Your task to perform on an android device: change the clock display to digital Image 0: 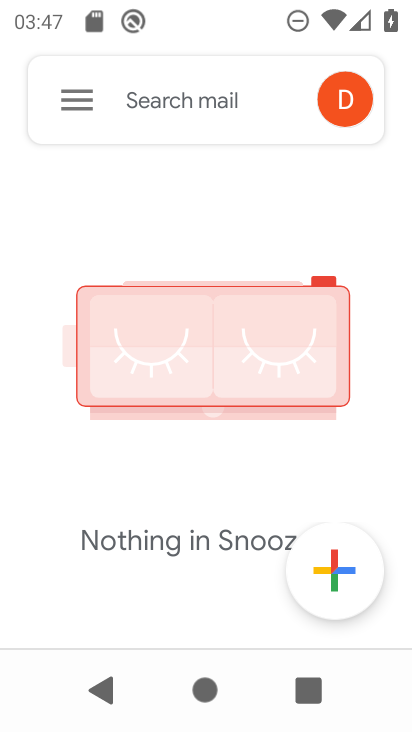
Step 0: press home button
Your task to perform on an android device: change the clock display to digital Image 1: 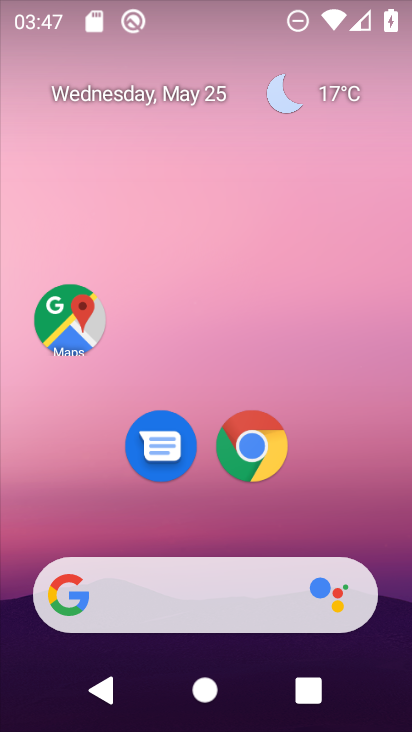
Step 1: drag from (224, 582) to (221, 174)
Your task to perform on an android device: change the clock display to digital Image 2: 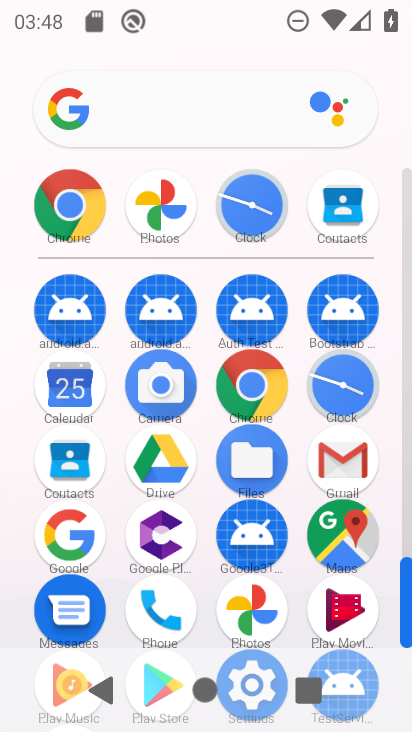
Step 2: click (242, 224)
Your task to perform on an android device: change the clock display to digital Image 3: 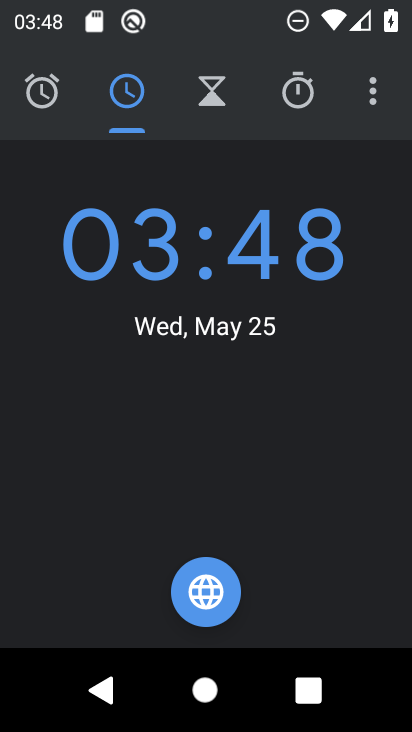
Step 3: click (367, 100)
Your task to perform on an android device: change the clock display to digital Image 4: 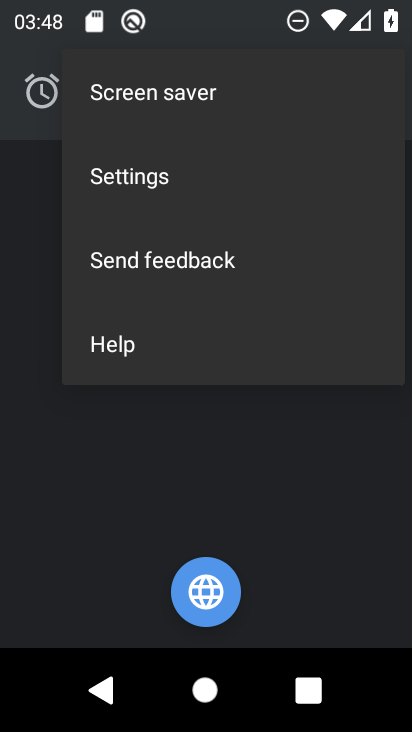
Step 4: click (187, 171)
Your task to perform on an android device: change the clock display to digital Image 5: 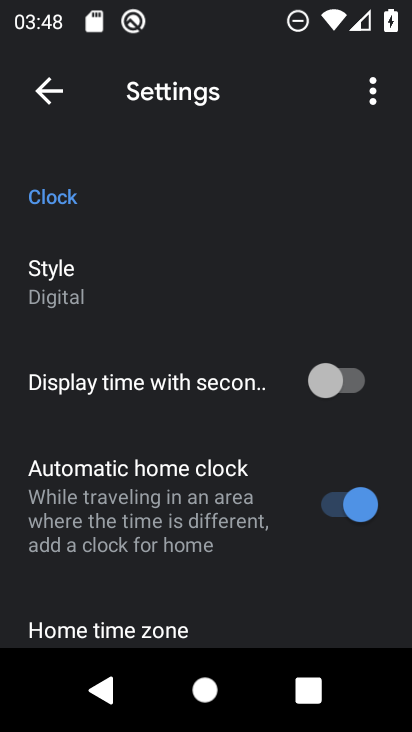
Step 5: click (117, 258)
Your task to perform on an android device: change the clock display to digital Image 6: 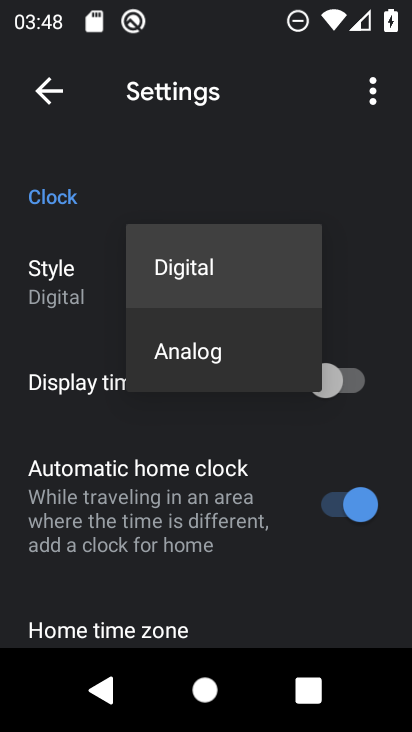
Step 6: click (187, 290)
Your task to perform on an android device: change the clock display to digital Image 7: 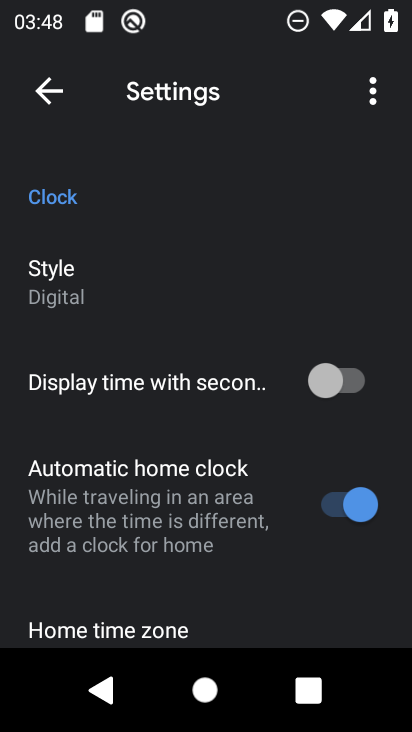
Step 7: task complete